Your task to perform on an android device: Open Chrome and go to settings Image 0: 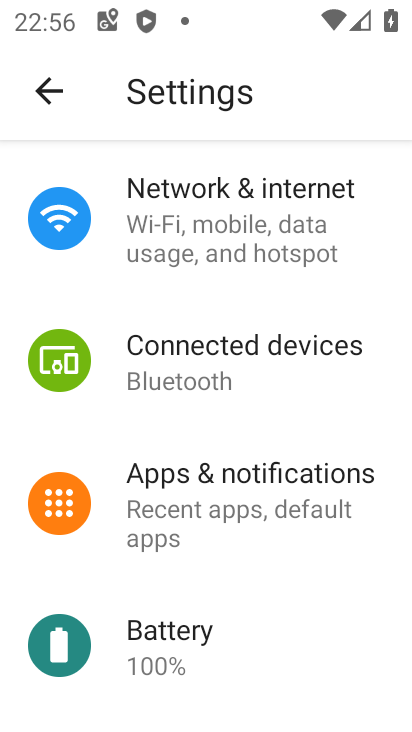
Step 0: click (319, 266)
Your task to perform on an android device: Open Chrome and go to settings Image 1: 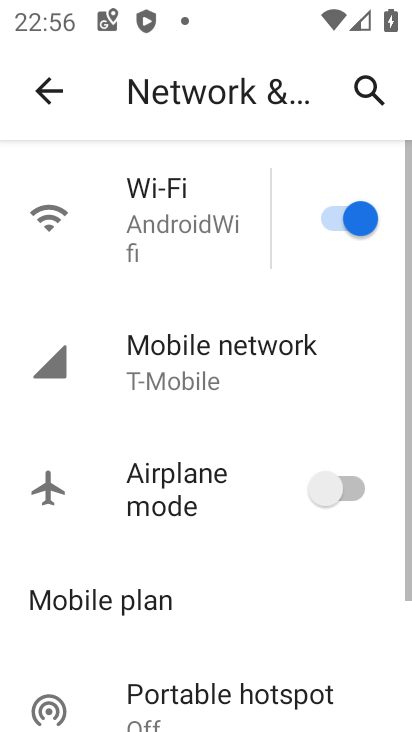
Step 1: task complete